Your task to perform on an android device: turn on location history Image 0: 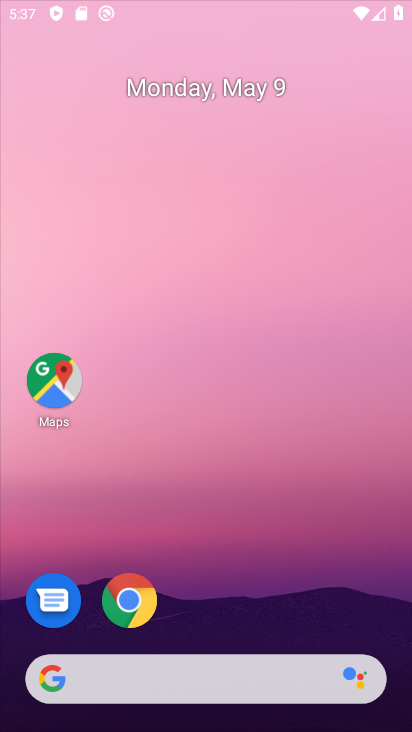
Step 0: click (198, 685)
Your task to perform on an android device: turn on location history Image 1: 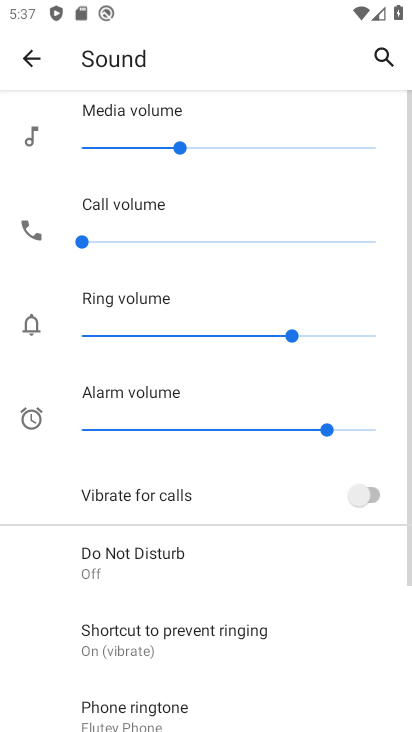
Step 1: click (33, 70)
Your task to perform on an android device: turn on location history Image 2: 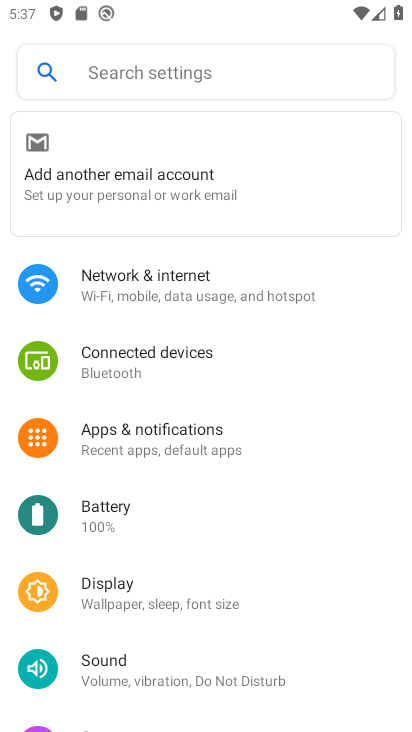
Step 2: drag from (170, 599) to (276, 17)
Your task to perform on an android device: turn on location history Image 3: 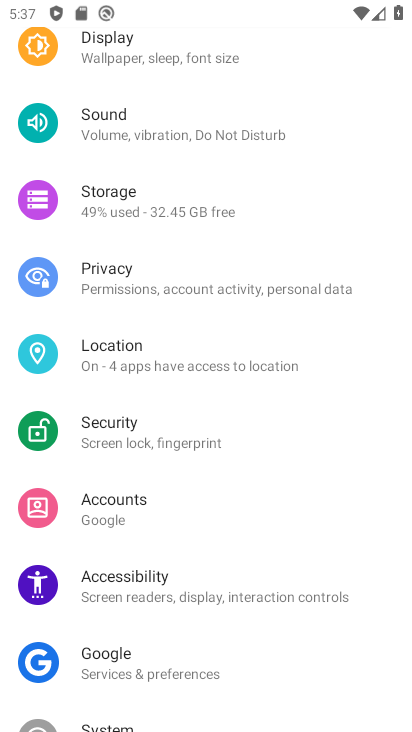
Step 3: click (151, 362)
Your task to perform on an android device: turn on location history Image 4: 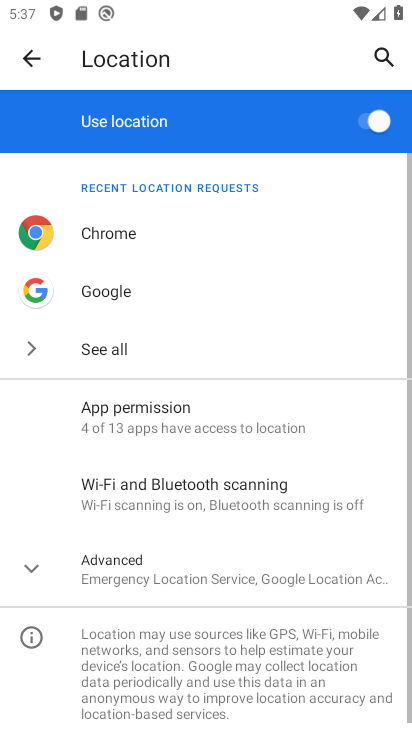
Step 4: click (155, 583)
Your task to perform on an android device: turn on location history Image 5: 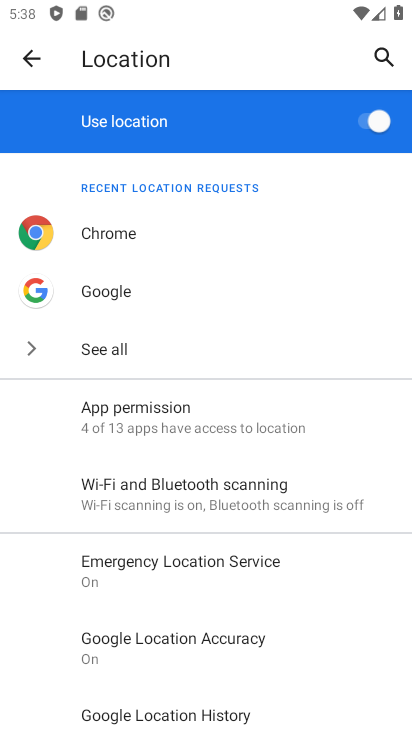
Step 5: click (189, 710)
Your task to perform on an android device: turn on location history Image 6: 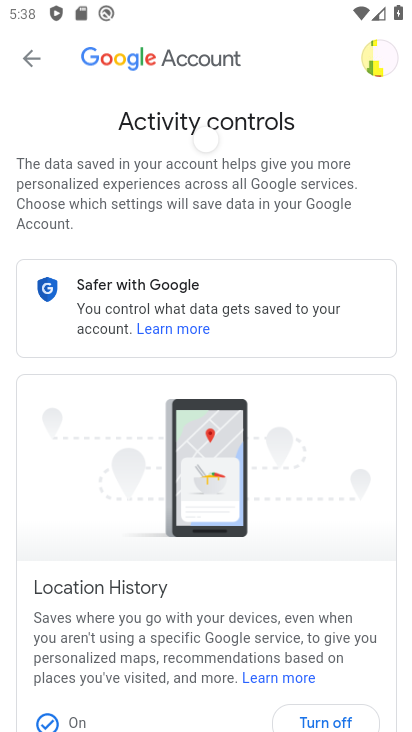
Step 6: task complete